Your task to perform on an android device: Search for "alienware area 51" on newegg.com, select the first entry, add it to the cart, then select checkout. Image 0: 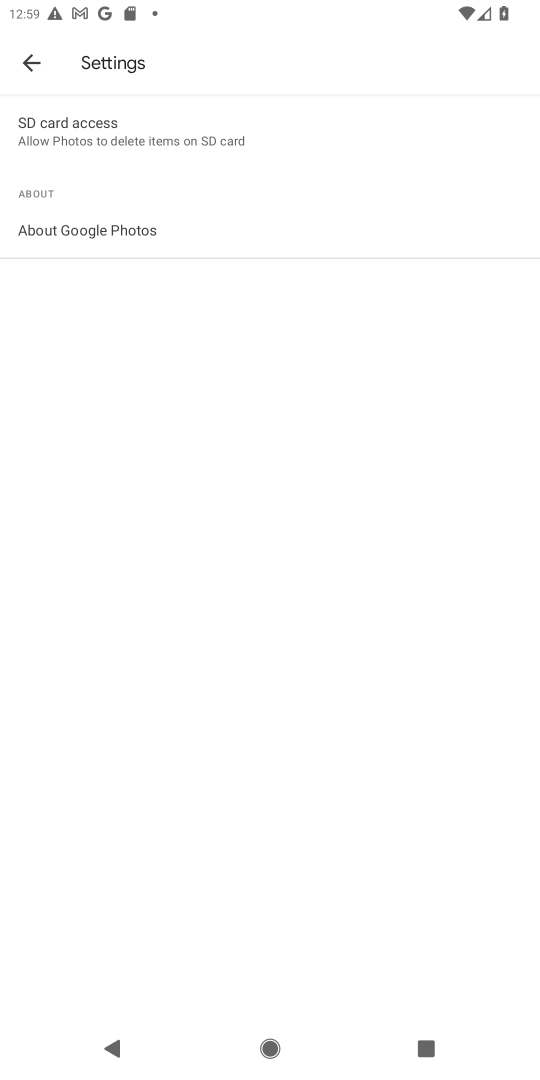
Step 0: press home button
Your task to perform on an android device: Search for "alienware area 51" on newegg.com, select the first entry, add it to the cart, then select checkout. Image 1: 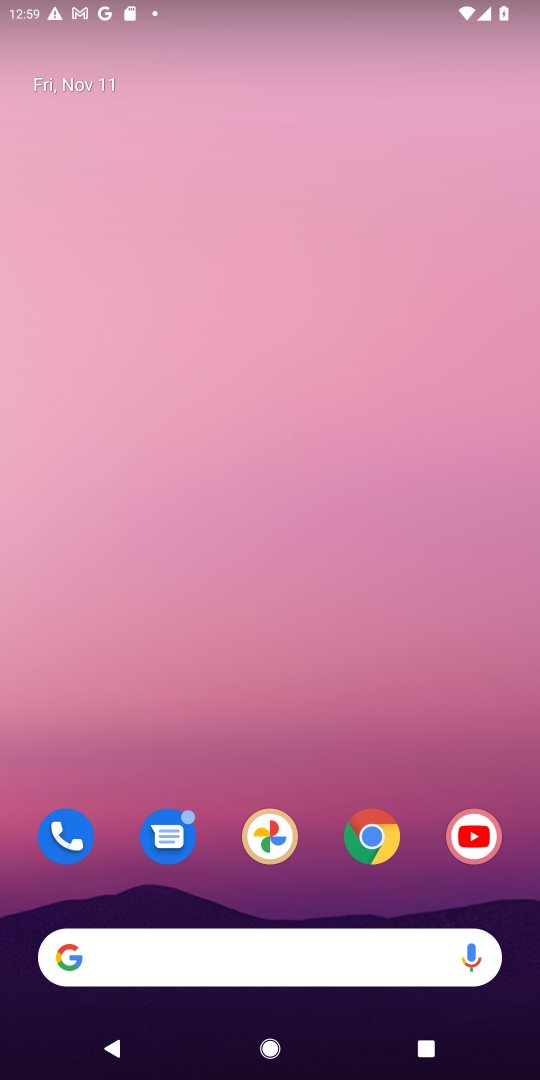
Step 1: click (243, 960)
Your task to perform on an android device: Search for "alienware area 51" on newegg.com, select the first entry, add it to the cart, then select checkout. Image 2: 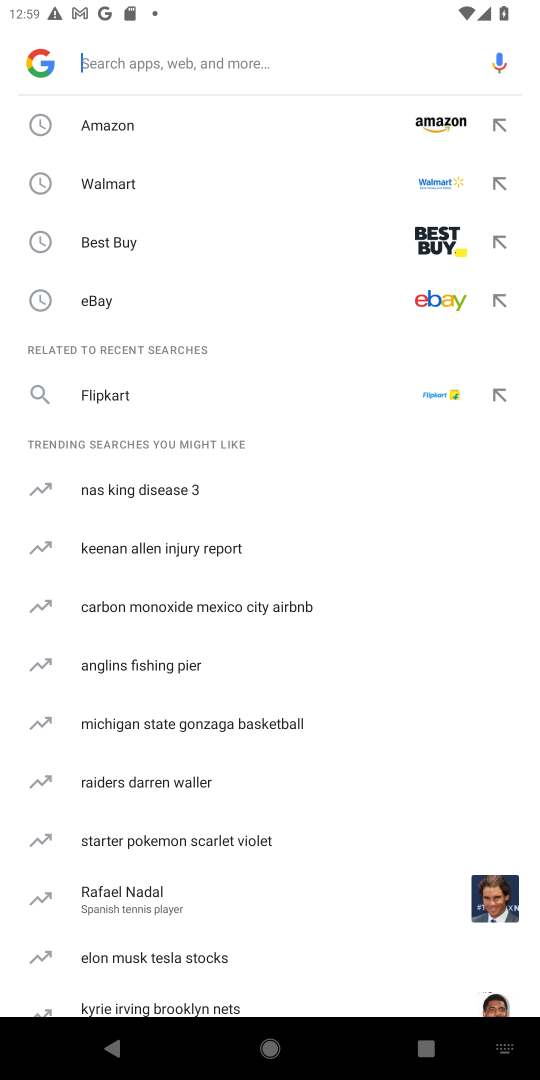
Step 2: type "newegg.com"
Your task to perform on an android device: Search for "alienware area 51" on newegg.com, select the first entry, add it to the cart, then select checkout. Image 3: 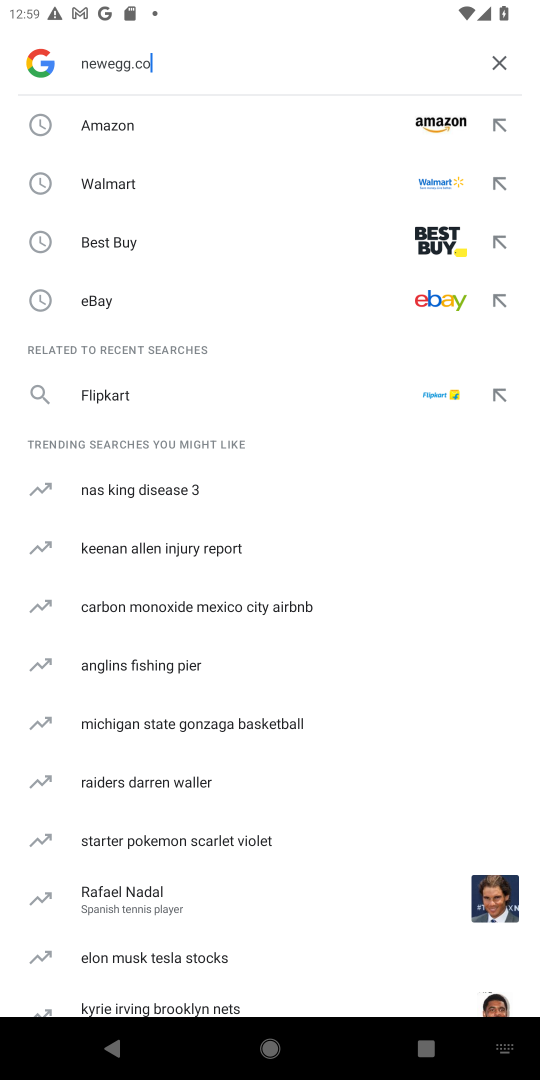
Step 3: type ""
Your task to perform on an android device: Search for "alienware area 51" on newegg.com, select the first entry, add it to the cart, then select checkout. Image 4: 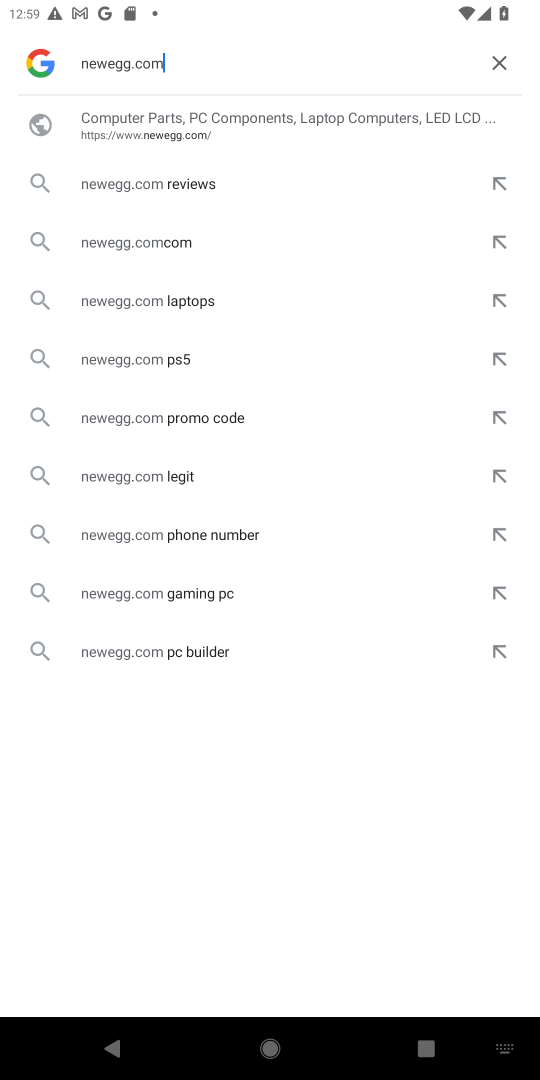
Step 4: click (206, 131)
Your task to perform on an android device: Search for "alienware area 51" on newegg.com, select the first entry, add it to the cart, then select checkout. Image 5: 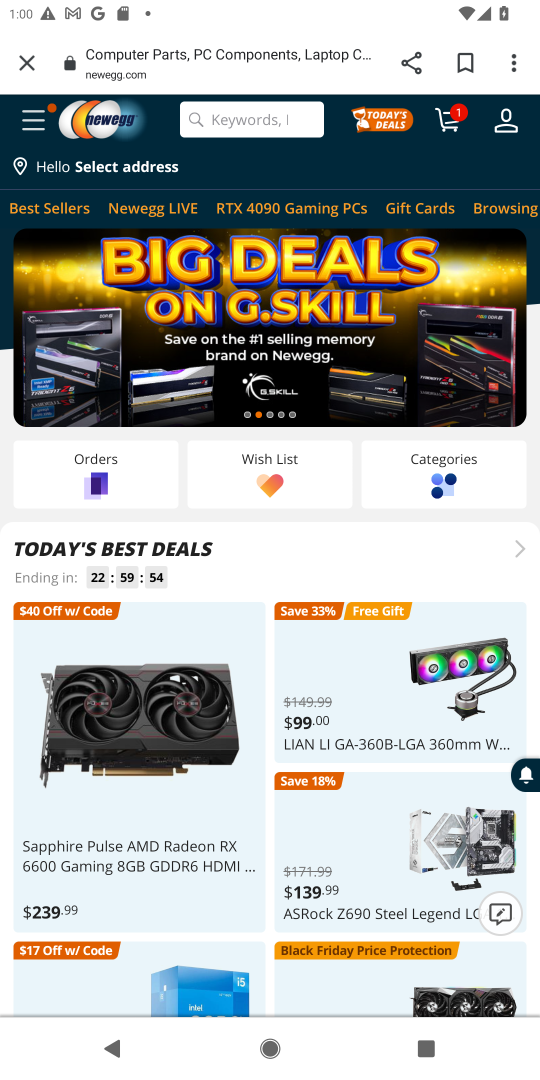
Step 5: click (246, 122)
Your task to perform on an android device: Search for "alienware area 51" on newegg.com, select the first entry, add it to the cart, then select checkout. Image 6: 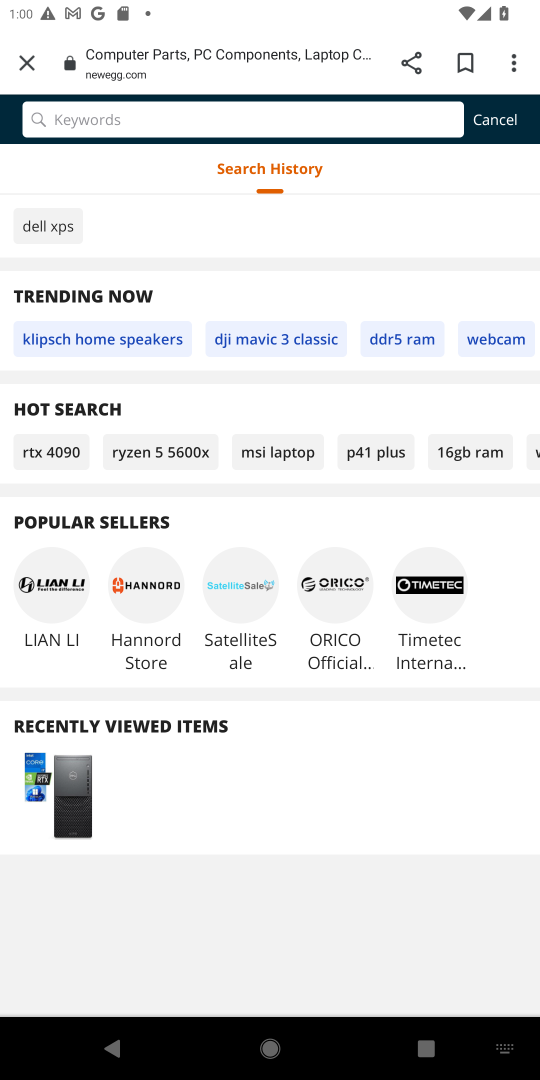
Step 6: type "alienware area 51"
Your task to perform on an android device: Search for "alienware area 51" on newegg.com, select the first entry, add it to the cart, then select checkout. Image 7: 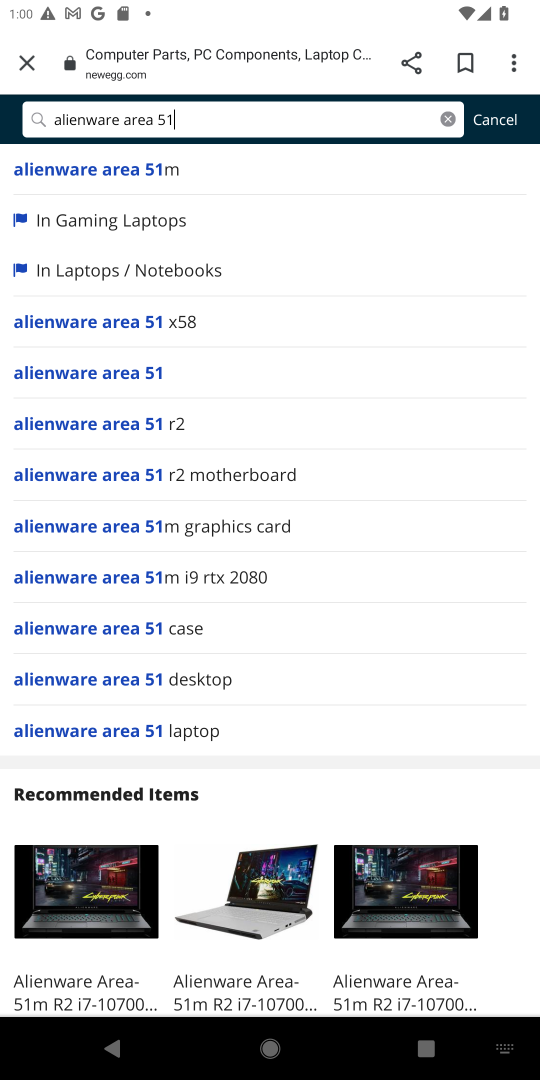
Step 7: click (137, 164)
Your task to perform on an android device: Search for "alienware area 51" on newegg.com, select the first entry, add it to the cart, then select checkout. Image 8: 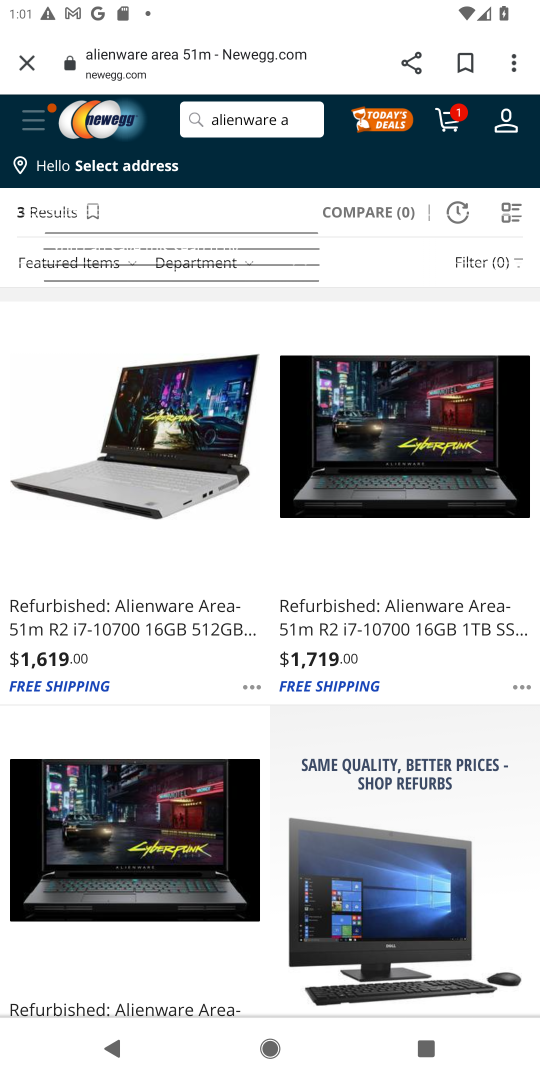
Step 8: click (128, 441)
Your task to perform on an android device: Search for "alienware area 51" on newegg.com, select the first entry, add it to the cart, then select checkout. Image 9: 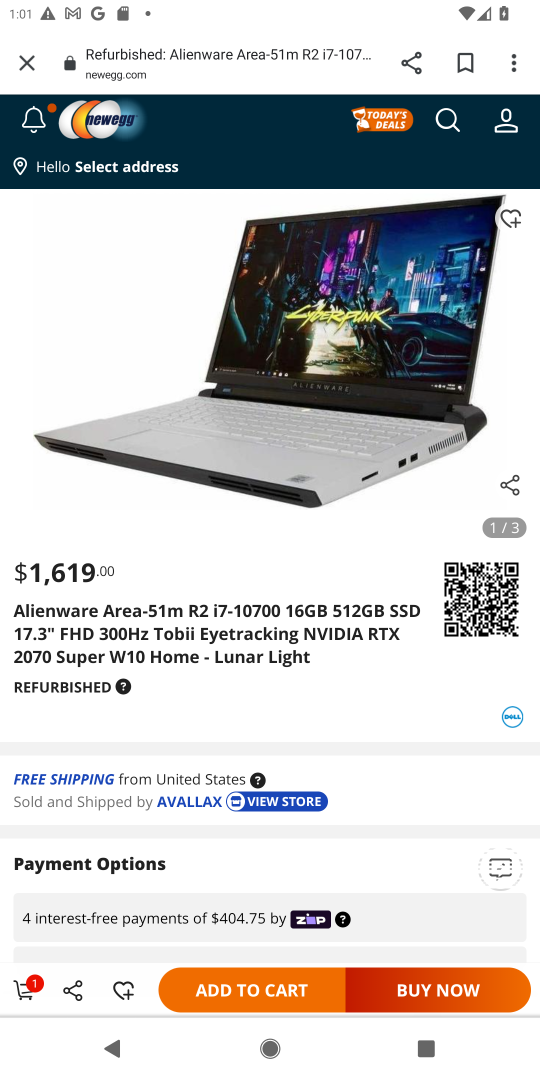
Step 9: click (234, 989)
Your task to perform on an android device: Search for "alienware area 51" on newegg.com, select the first entry, add it to the cart, then select checkout. Image 10: 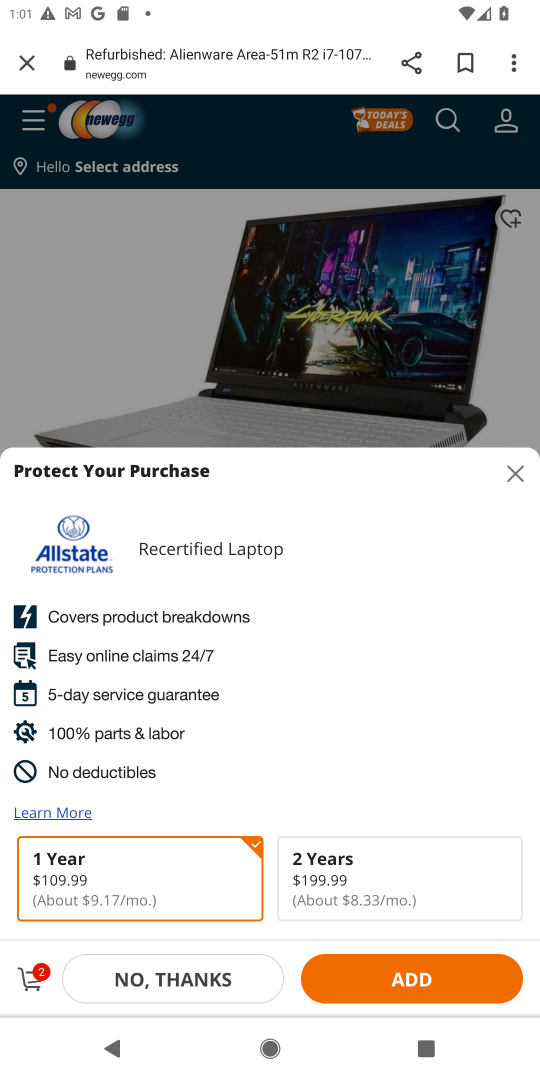
Step 10: click (154, 975)
Your task to perform on an android device: Search for "alienware area 51" on newegg.com, select the first entry, add it to the cart, then select checkout. Image 11: 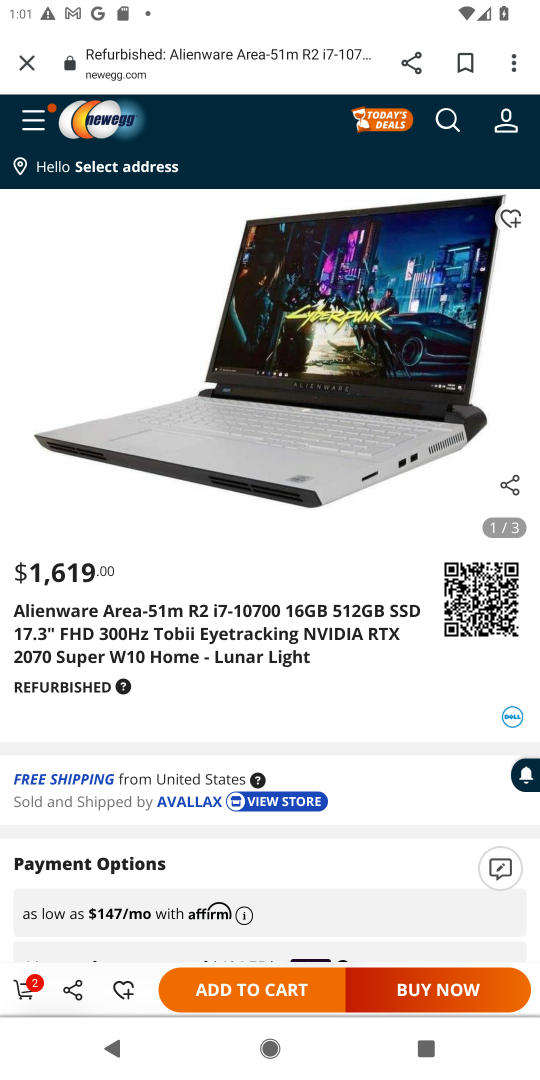
Step 11: click (24, 989)
Your task to perform on an android device: Search for "alienware area 51" on newegg.com, select the first entry, add it to the cart, then select checkout. Image 12: 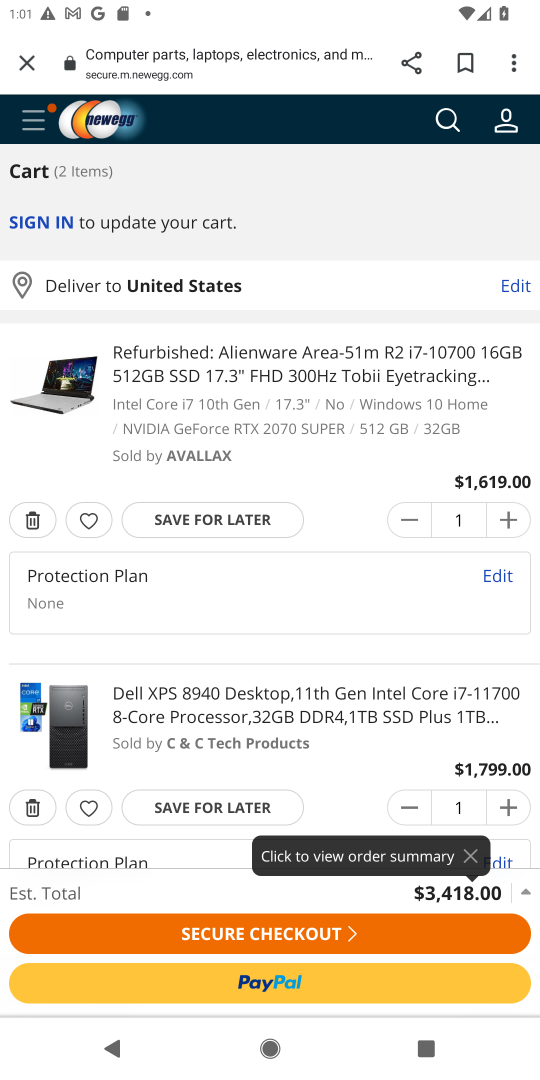
Step 12: click (267, 983)
Your task to perform on an android device: Search for "alienware area 51" on newegg.com, select the first entry, add it to the cart, then select checkout. Image 13: 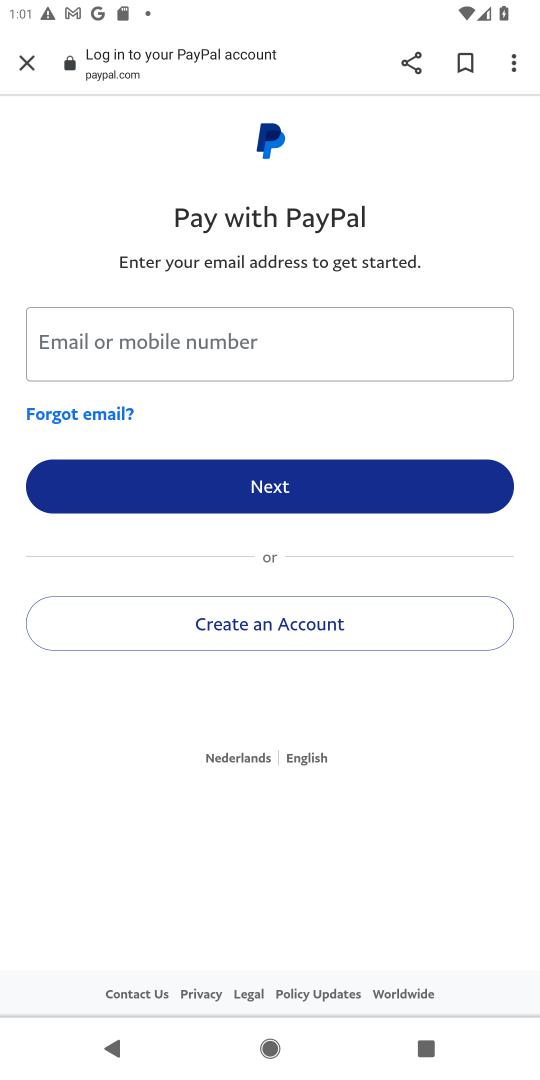
Step 13: click (18, 69)
Your task to perform on an android device: Search for "alienware area 51" on newegg.com, select the first entry, add it to the cart, then select checkout. Image 14: 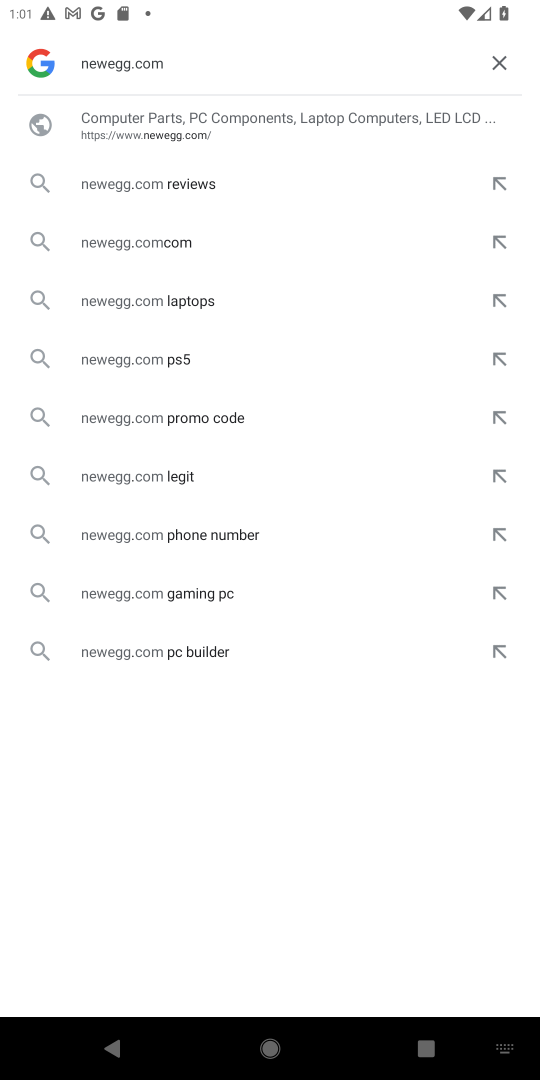
Step 14: press back button
Your task to perform on an android device: Search for "alienware area 51" on newegg.com, select the first entry, add it to the cart, then select checkout. Image 15: 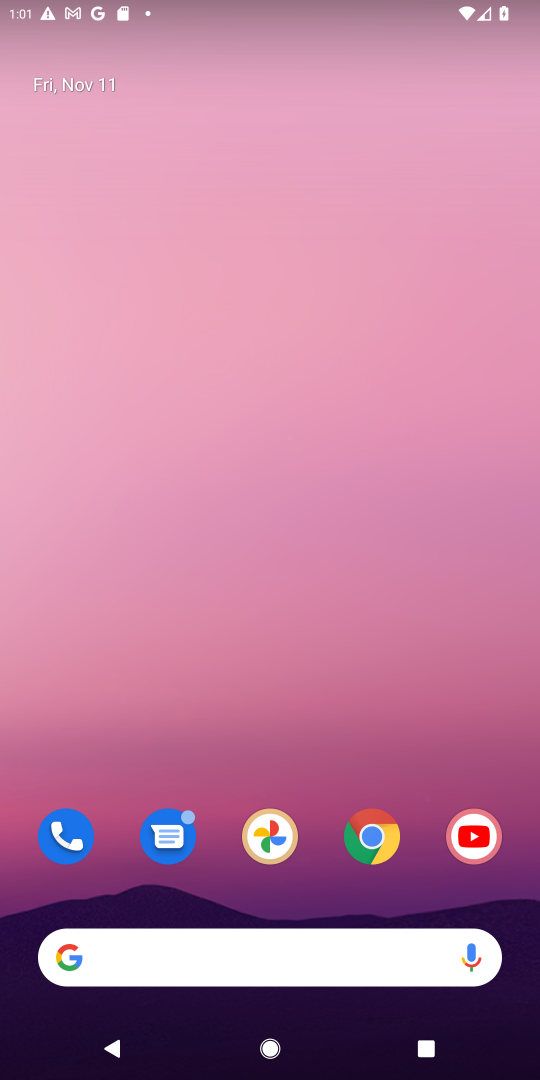
Step 15: click (238, 938)
Your task to perform on an android device: Search for "alienware area 51" on newegg.com, select the first entry, add it to the cart, then select checkout. Image 16: 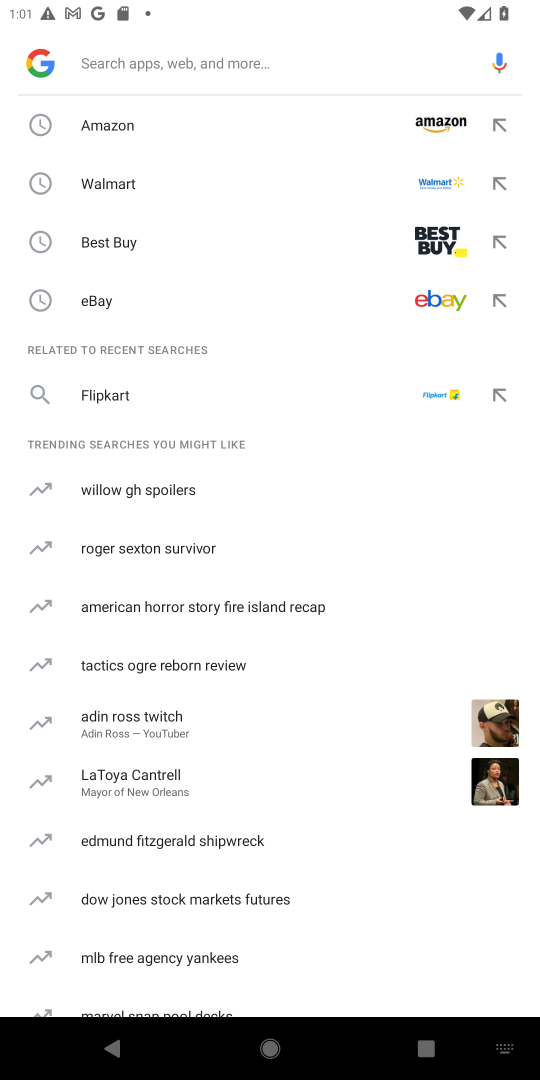
Step 16: press back button
Your task to perform on an android device: Search for "alienware area 51" on newegg.com, select the first entry, add it to the cart, then select checkout. Image 17: 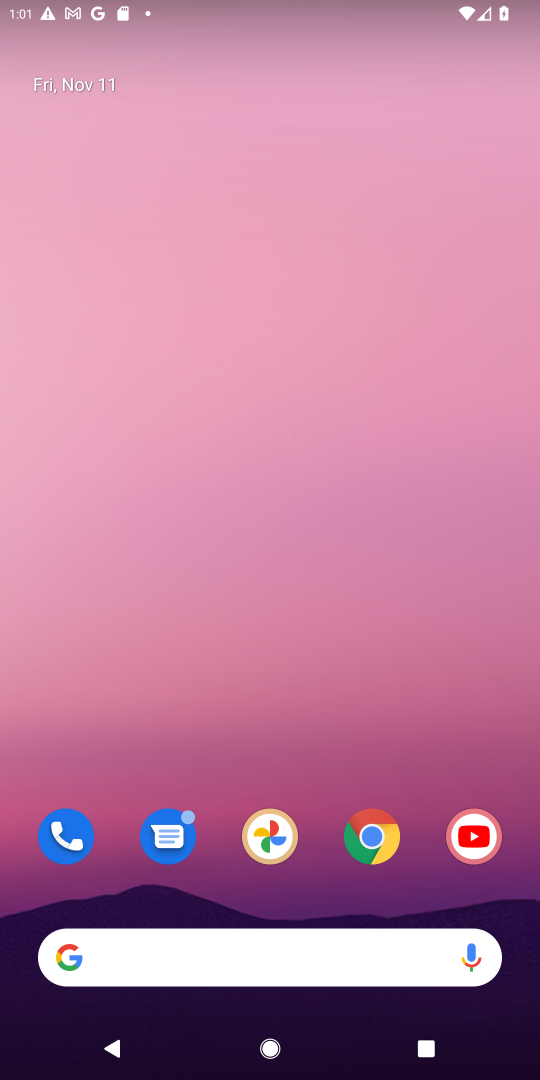
Step 17: click (284, 944)
Your task to perform on an android device: Search for "alienware area 51" on newegg.com, select the first entry, add it to the cart, then select checkout. Image 18: 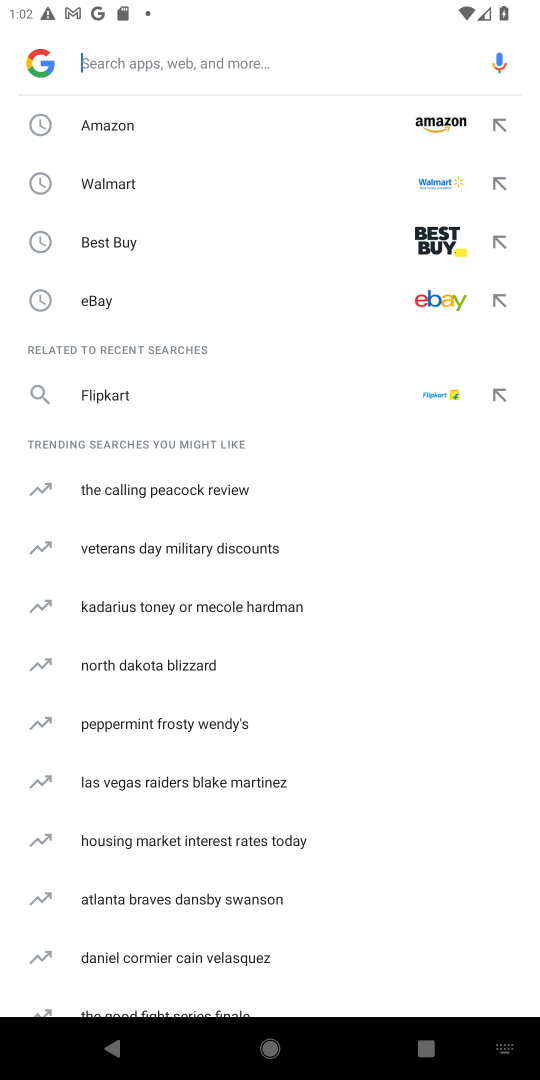
Step 18: type "newegg.com"
Your task to perform on an android device: Search for "alienware area 51" on newegg.com, select the first entry, add it to the cart, then select checkout. Image 19: 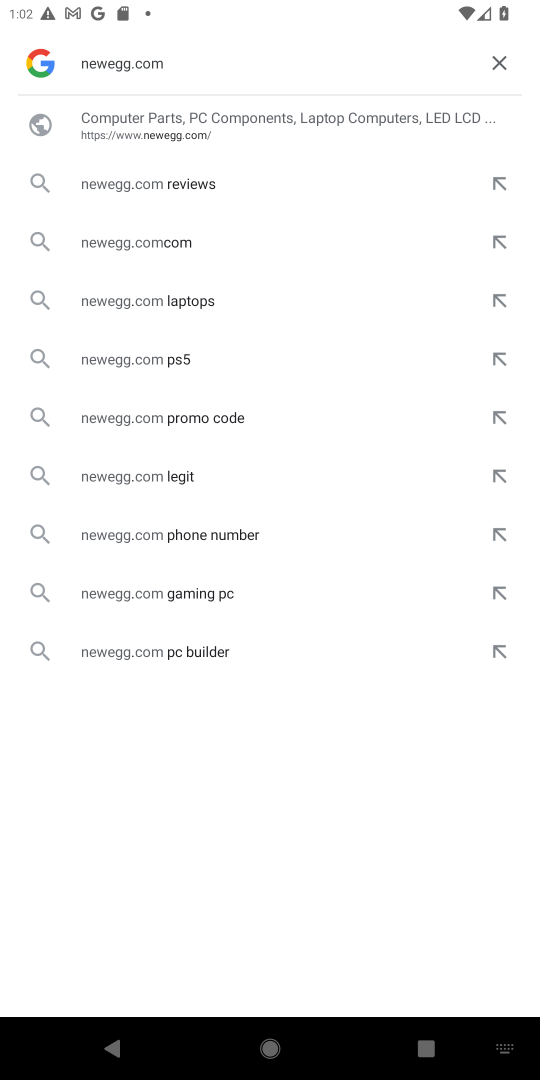
Step 19: click (151, 120)
Your task to perform on an android device: Search for "alienware area 51" on newegg.com, select the first entry, add it to the cart, then select checkout. Image 20: 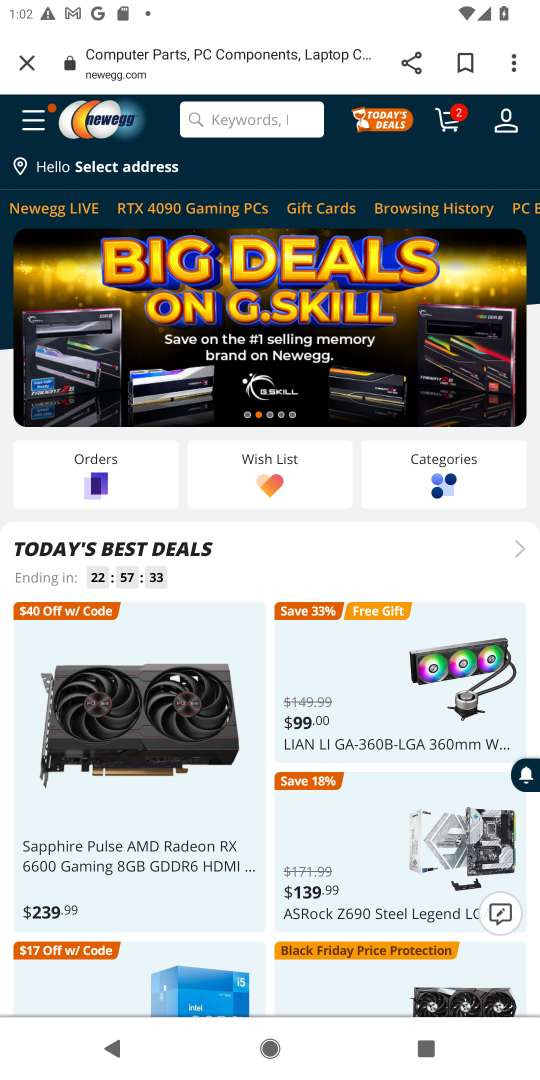
Step 20: click (220, 118)
Your task to perform on an android device: Search for "alienware area 51" on newegg.com, select the first entry, add it to the cart, then select checkout. Image 21: 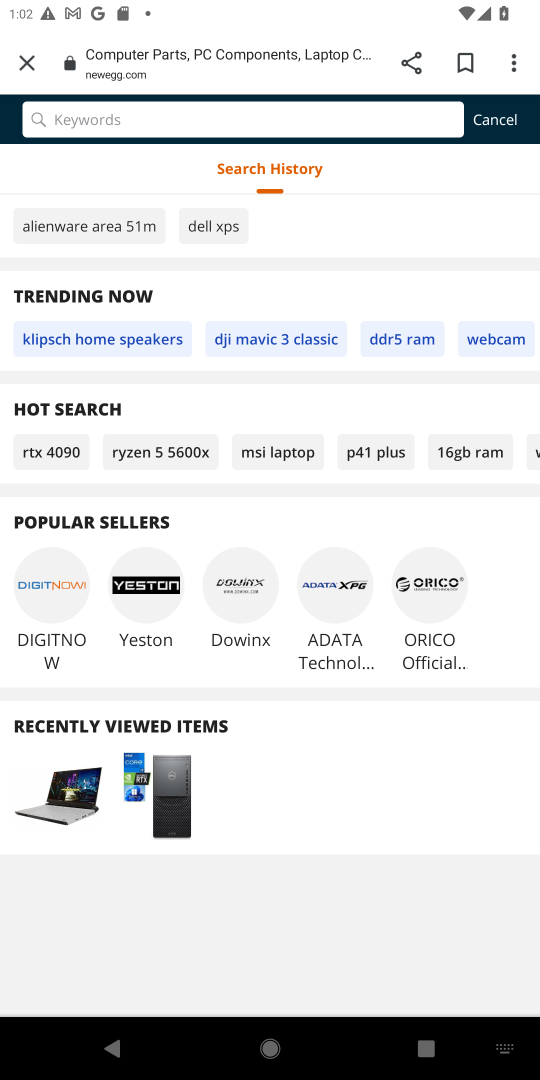
Step 21: type "alienware area 51"
Your task to perform on an android device: Search for "alienware area 51" on newegg.com, select the first entry, add it to the cart, then select checkout. Image 22: 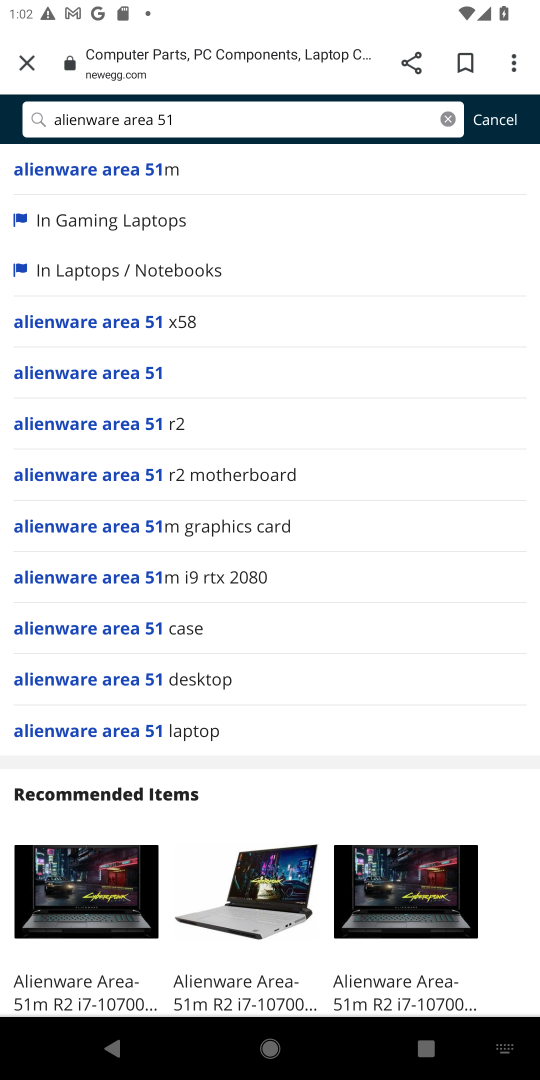
Step 22: click (109, 165)
Your task to perform on an android device: Search for "alienware area 51" on newegg.com, select the first entry, add it to the cart, then select checkout. Image 23: 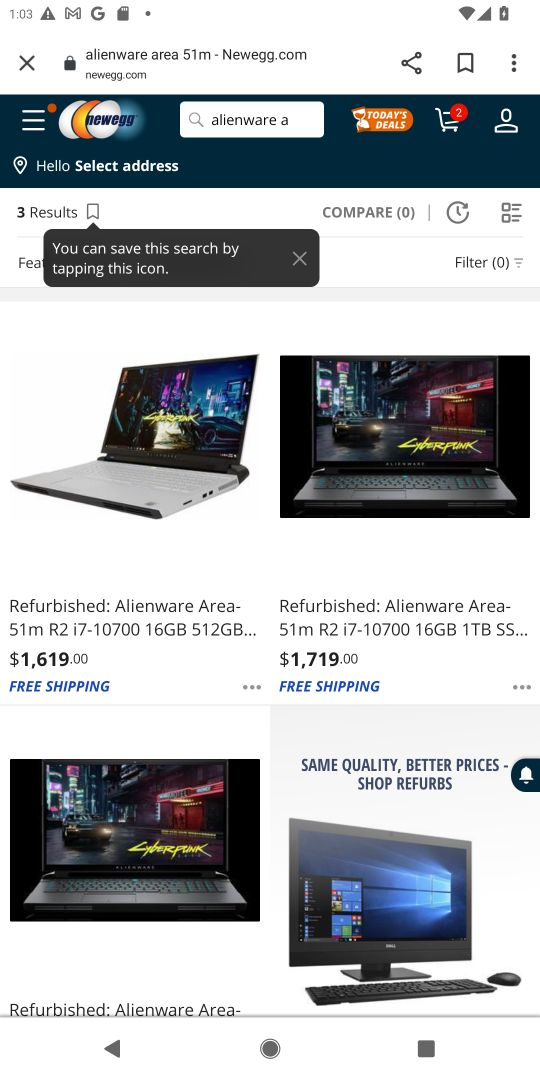
Step 23: click (119, 549)
Your task to perform on an android device: Search for "alienware area 51" on newegg.com, select the first entry, add it to the cart, then select checkout. Image 24: 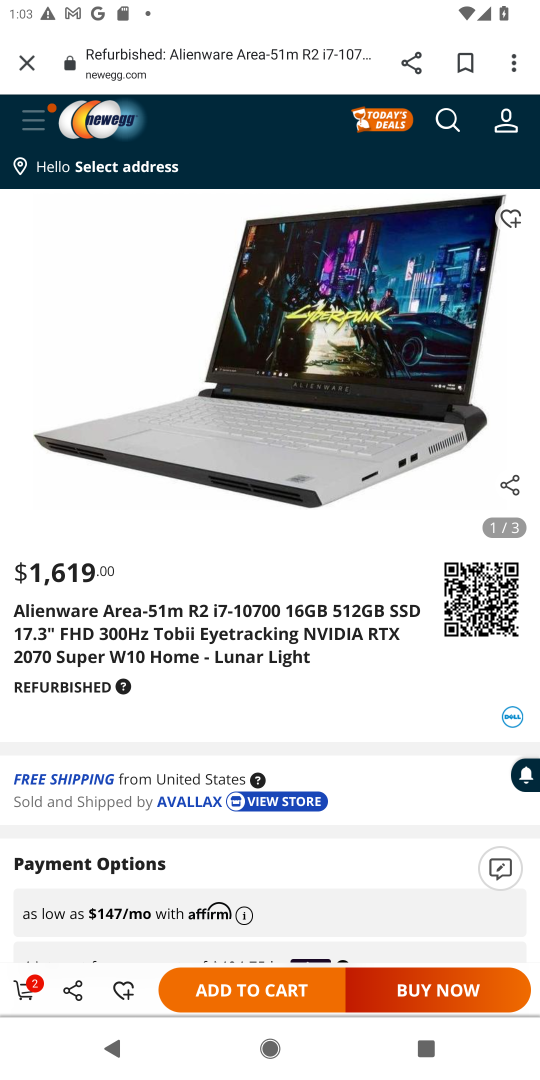
Step 24: click (221, 980)
Your task to perform on an android device: Search for "alienware area 51" on newegg.com, select the first entry, add it to the cart, then select checkout. Image 25: 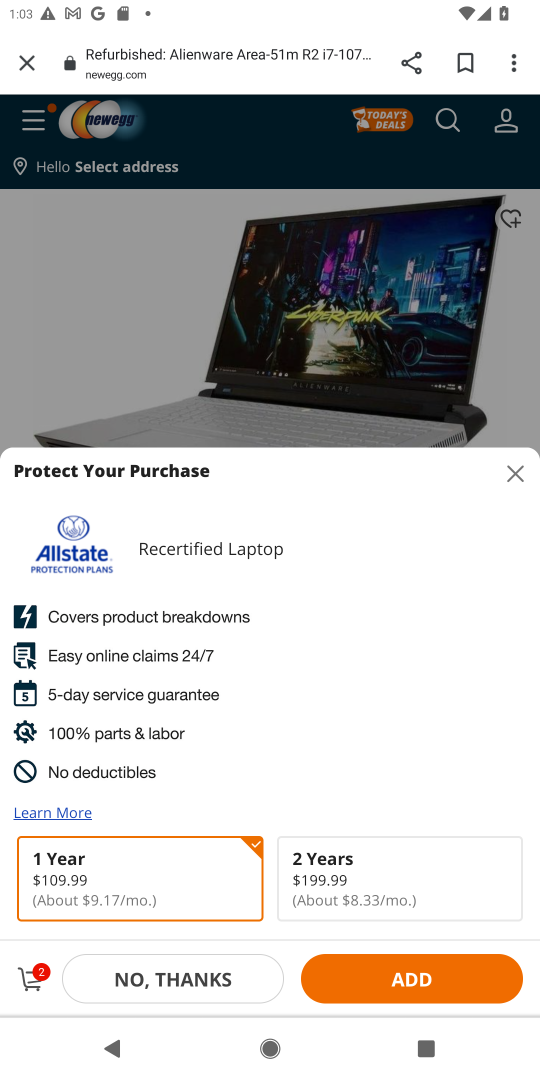
Step 25: task complete